Your task to perform on an android device: Open ESPN.com Image 0: 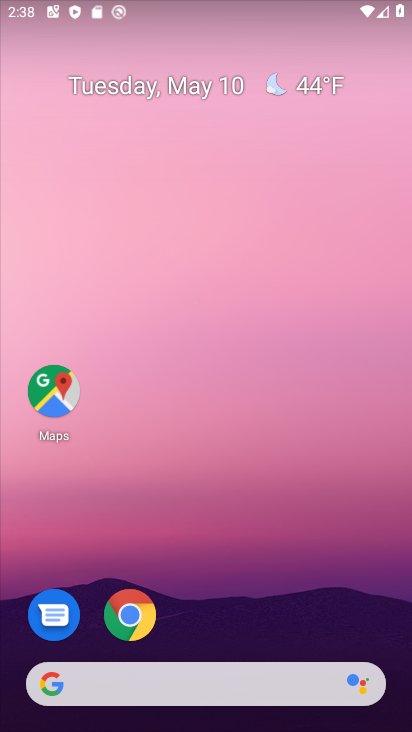
Step 0: click (120, 617)
Your task to perform on an android device: Open ESPN.com Image 1: 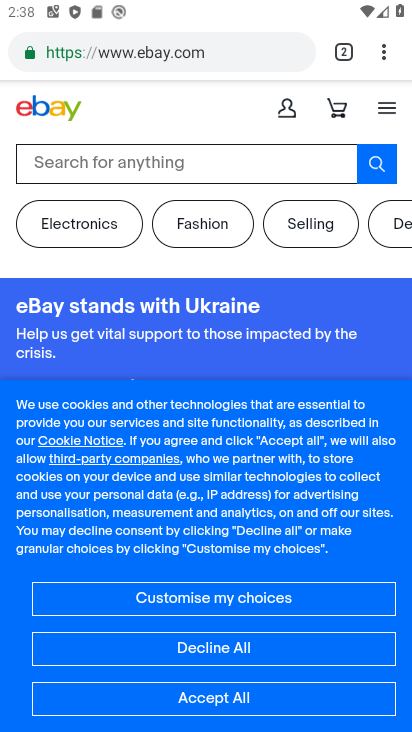
Step 1: drag from (370, 53) to (244, 194)
Your task to perform on an android device: Open ESPN.com Image 2: 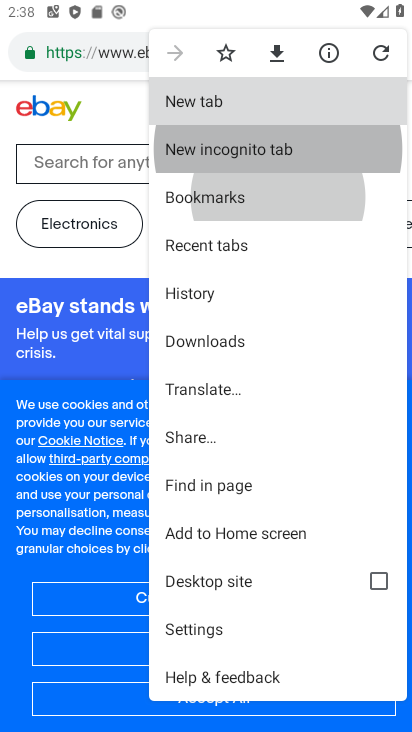
Step 2: click (219, 139)
Your task to perform on an android device: Open ESPN.com Image 3: 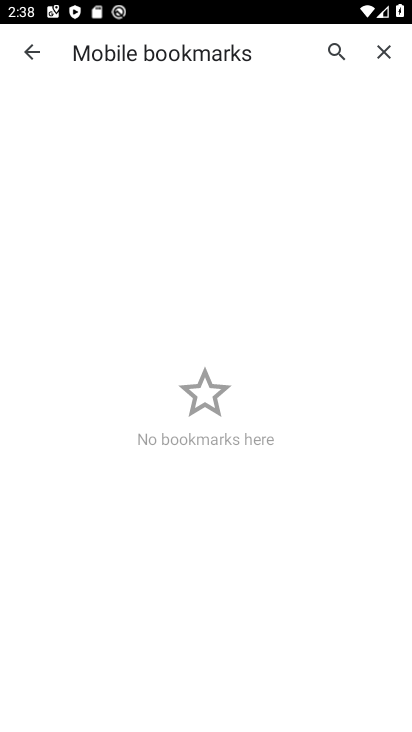
Step 3: click (389, 65)
Your task to perform on an android device: Open ESPN.com Image 4: 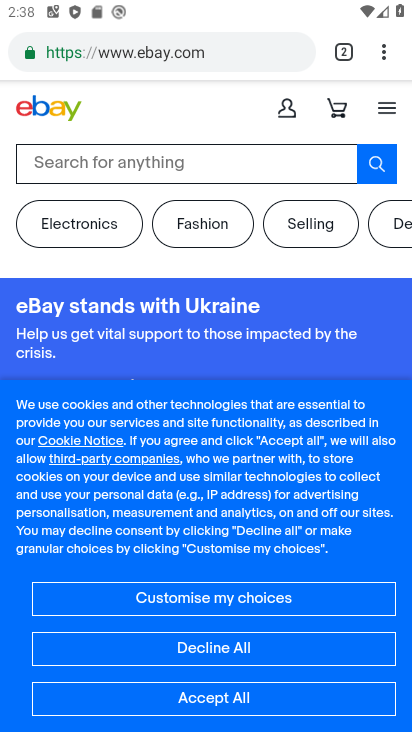
Step 4: drag from (386, 55) to (233, 97)
Your task to perform on an android device: Open ESPN.com Image 5: 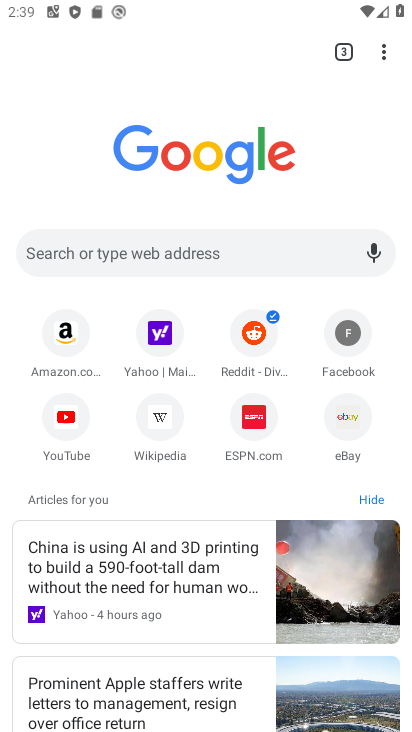
Step 5: click (269, 424)
Your task to perform on an android device: Open ESPN.com Image 6: 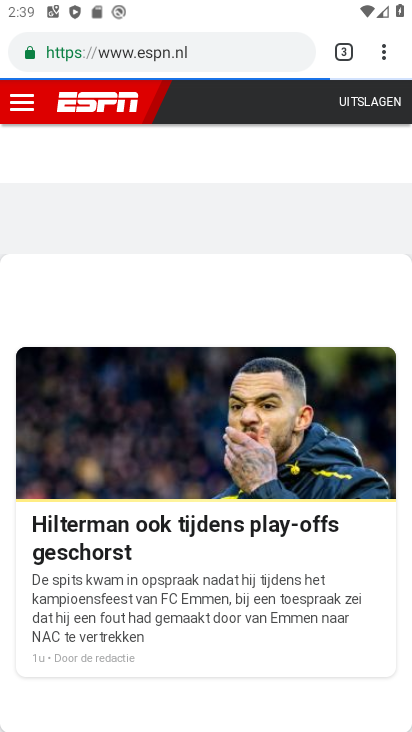
Step 6: task complete